Your task to perform on an android device: Search for flights from Mexico city to Seattle Image 0: 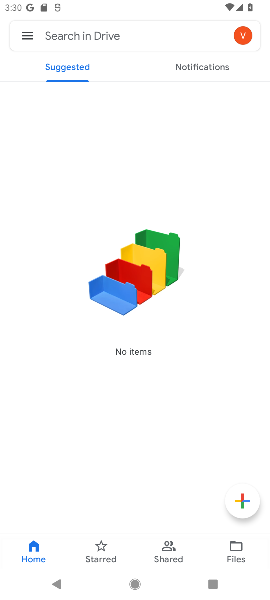
Step 0: press home button
Your task to perform on an android device: Search for flights from Mexico city to Seattle Image 1: 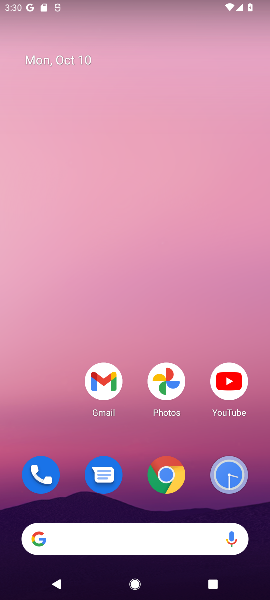
Step 1: drag from (167, 512) to (180, 271)
Your task to perform on an android device: Search for flights from Mexico city to Seattle Image 2: 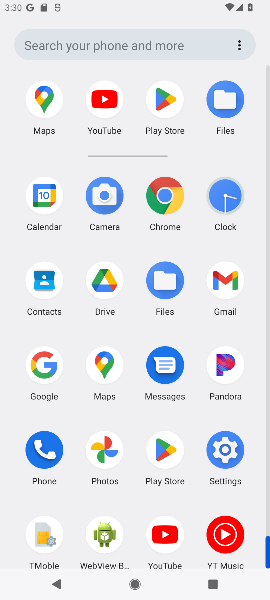
Step 2: click (50, 363)
Your task to perform on an android device: Search for flights from Mexico city to Seattle Image 3: 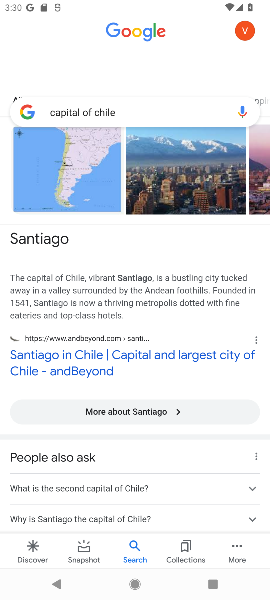
Step 3: click (157, 114)
Your task to perform on an android device: Search for flights from Mexico city to Seattle Image 4: 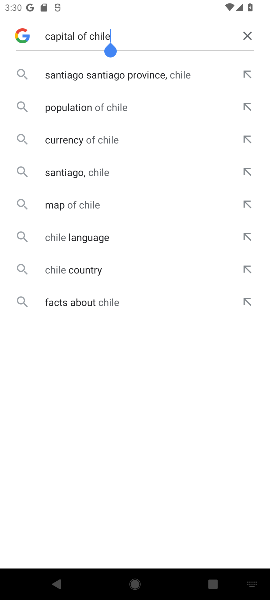
Step 4: click (257, 35)
Your task to perform on an android device: Search for flights from Mexico city to Seattle Image 5: 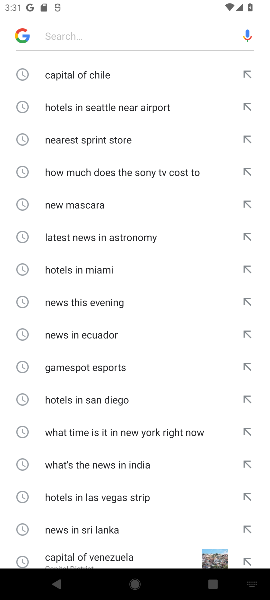
Step 5: type "flights from Mexico city to Seattle"
Your task to perform on an android device: Search for flights from Mexico city to Seattle Image 6: 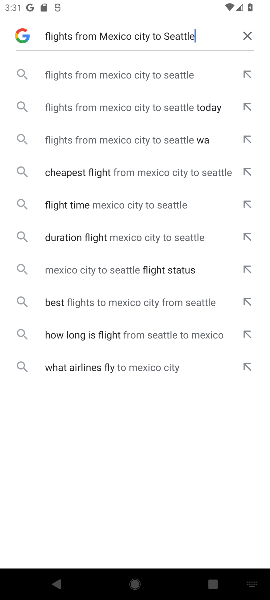
Step 6: click (161, 69)
Your task to perform on an android device: Search for flights from Mexico city to Seattle Image 7: 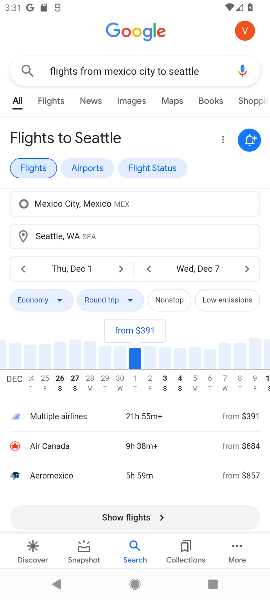
Step 7: task complete